Your task to perform on an android device: turn on the 12-hour format for clock Image 0: 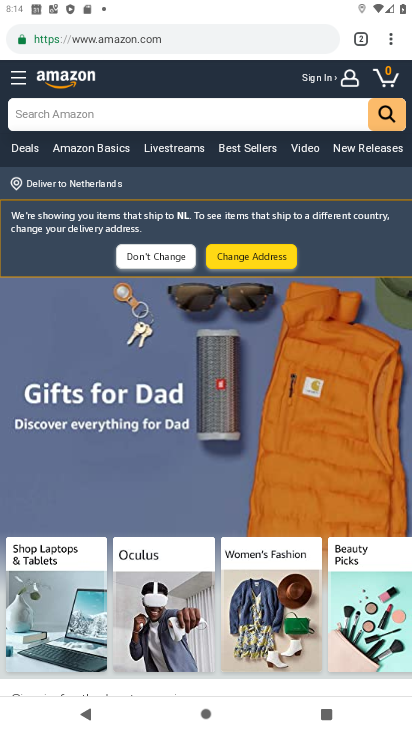
Step 0: press home button
Your task to perform on an android device: turn on the 12-hour format for clock Image 1: 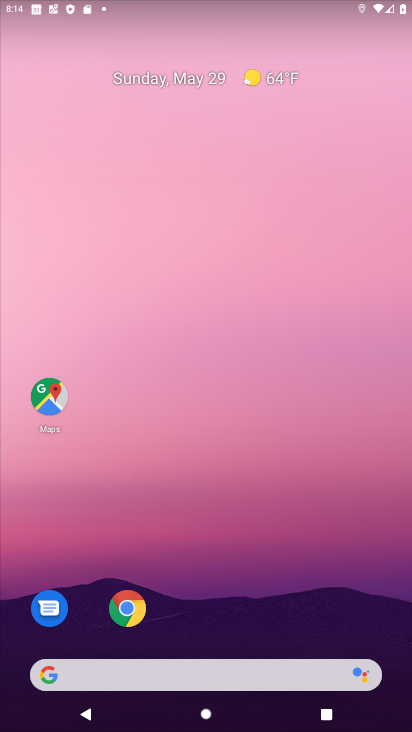
Step 1: drag from (276, 548) to (215, 243)
Your task to perform on an android device: turn on the 12-hour format for clock Image 2: 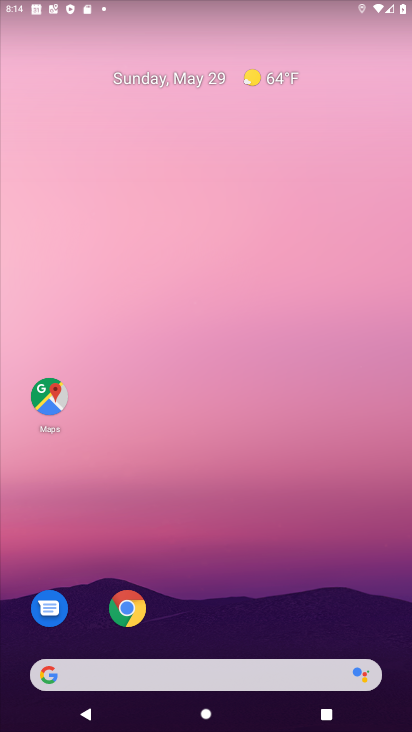
Step 2: drag from (240, 527) to (114, 23)
Your task to perform on an android device: turn on the 12-hour format for clock Image 3: 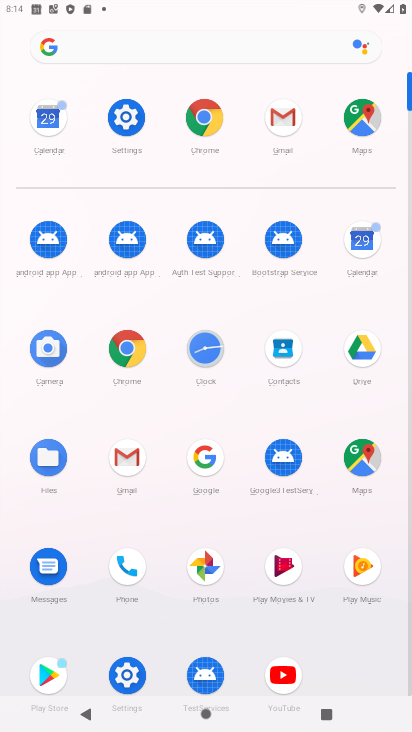
Step 3: click (200, 353)
Your task to perform on an android device: turn on the 12-hour format for clock Image 4: 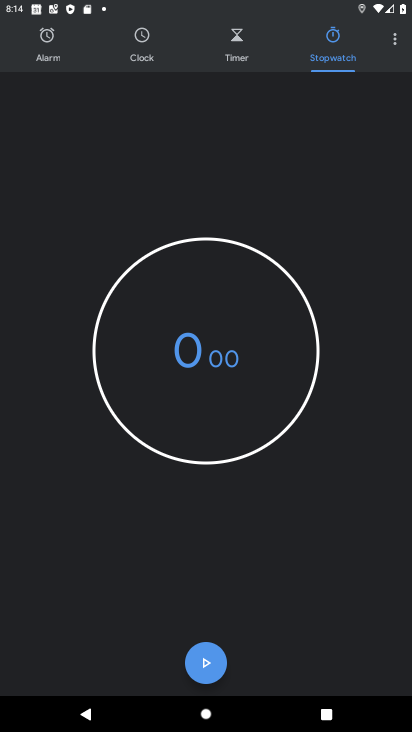
Step 4: click (397, 43)
Your task to perform on an android device: turn on the 12-hour format for clock Image 5: 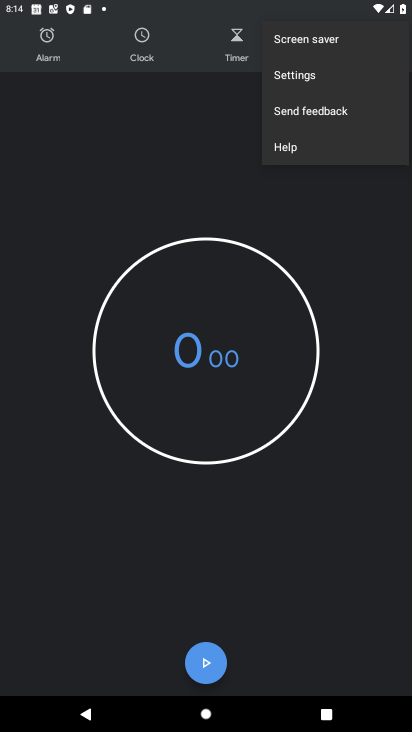
Step 5: click (311, 70)
Your task to perform on an android device: turn on the 12-hour format for clock Image 6: 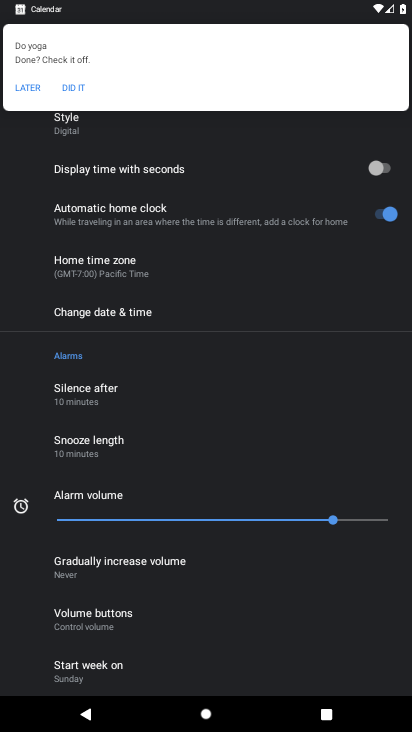
Step 6: click (107, 314)
Your task to perform on an android device: turn on the 12-hour format for clock Image 7: 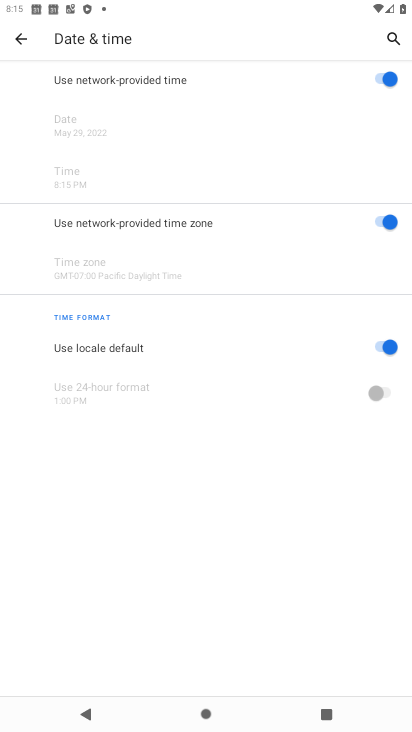
Step 7: task complete